Your task to perform on an android device: delete the emails in spam in the gmail app Image 0: 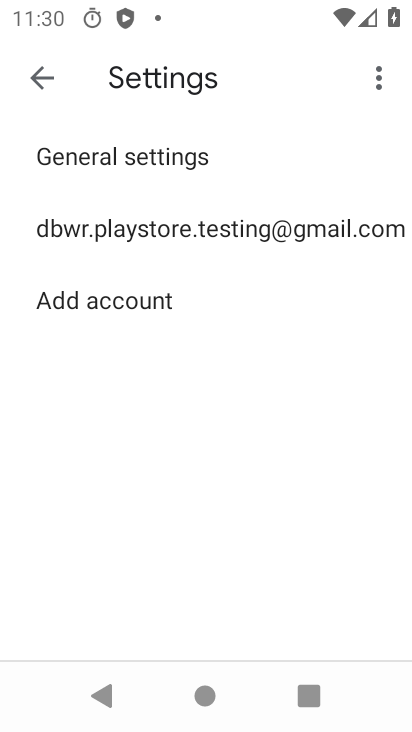
Step 0: press home button
Your task to perform on an android device: delete the emails in spam in the gmail app Image 1: 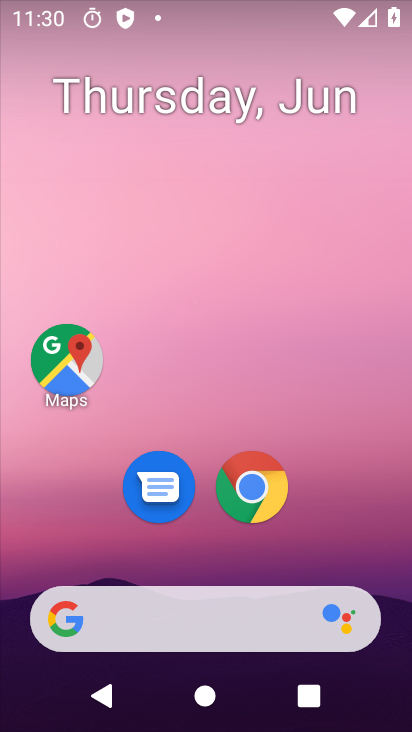
Step 1: drag from (168, 578) to (265, 31)
Your task to perform on an android device: delete the emails in spam in the gmail app Image 2: 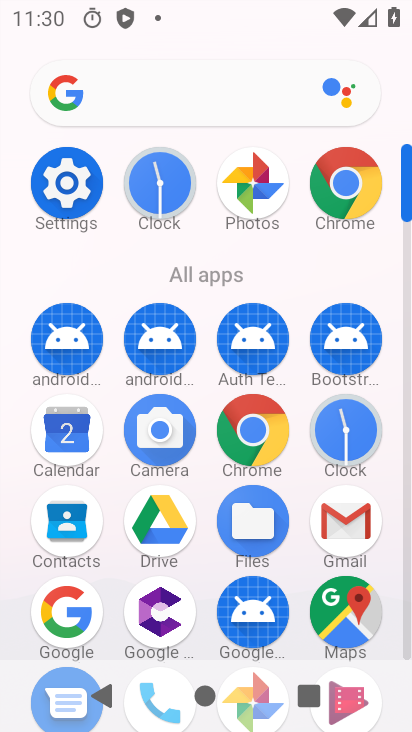
Step 2: drag from (186, 565) to (231, 328)
Your task to perform on an android device: delete the emails in spam in the gmail app Image 3: 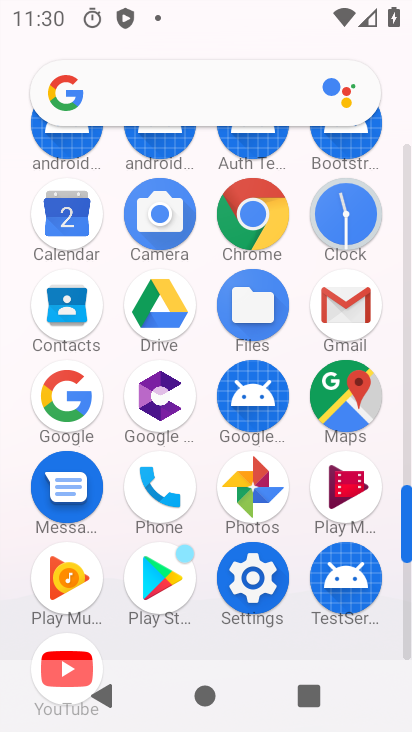
Step 3: click (363, 300)
Your task to perform on an android device: delete the emails in spam in the gmail app Image 4: 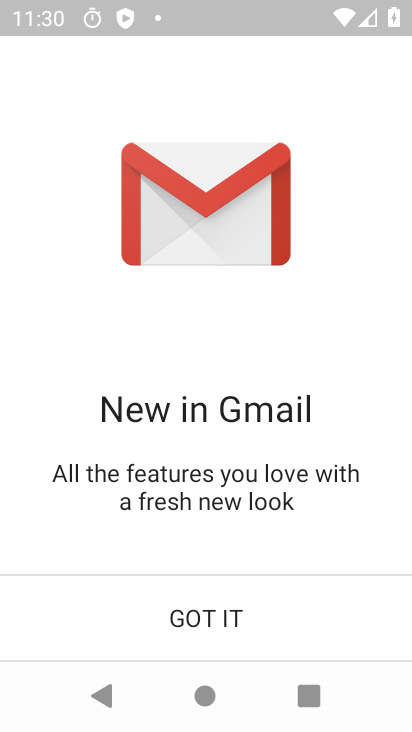
Step 4: click (195, 617)
Your task to perform on an android device: delete the emails in spam in the gmail app Image 5: 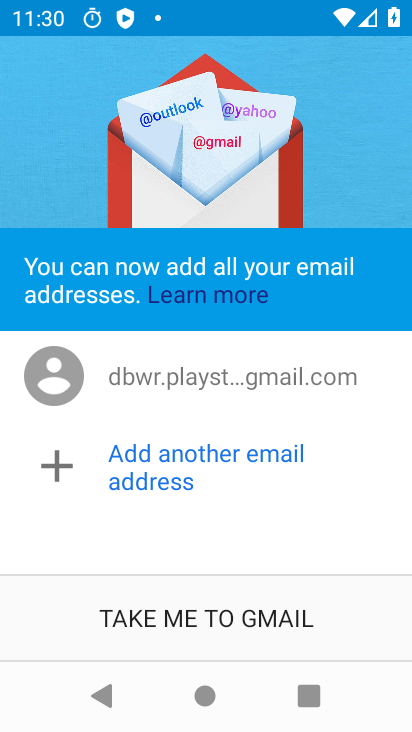
Step 5: click (226, 612)
Your task to perform on an android device: delete the emails in spam in the gmail app Image 6: 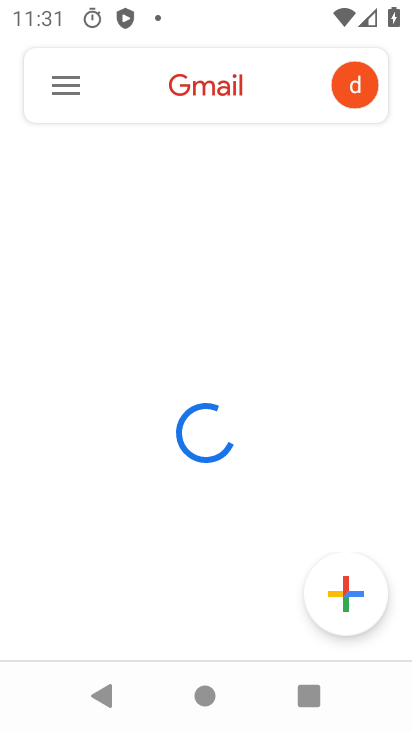
Step 6: click (70, 89)
Your task to perform on an android device: delete the emails in spam in the gmail app Image 7: 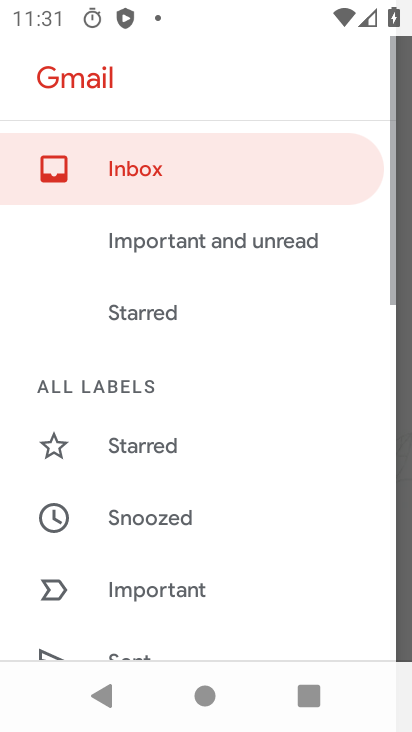
Step 7: drag from (145, 603) to (287, 187)
Your task to perform on an android device: delete the emails in spam in the gmail app Image 8: 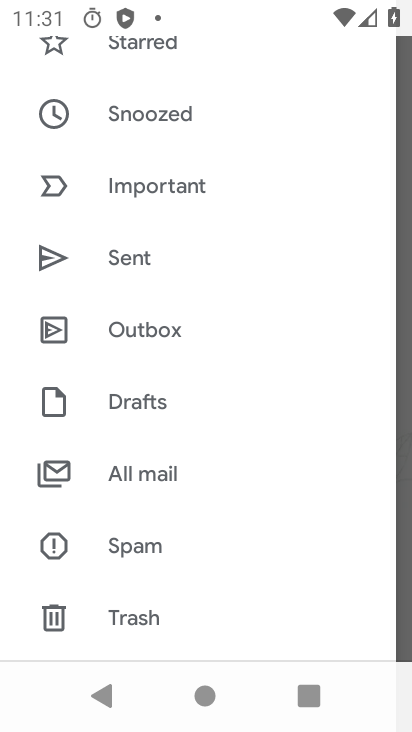
Step 8: click (143, 560)
Your task to perform on an android device: delete the emails in spam in the gmail app Image 9: 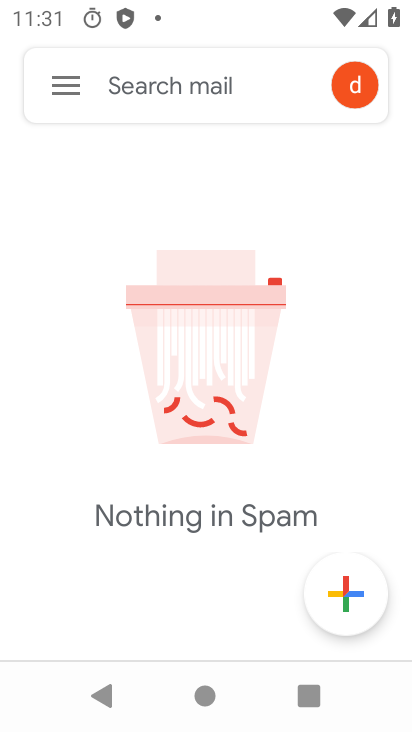
Step 9: task complete